Your task to perform on an android device: Search for seafood restaurants on Google Maps Image 0: 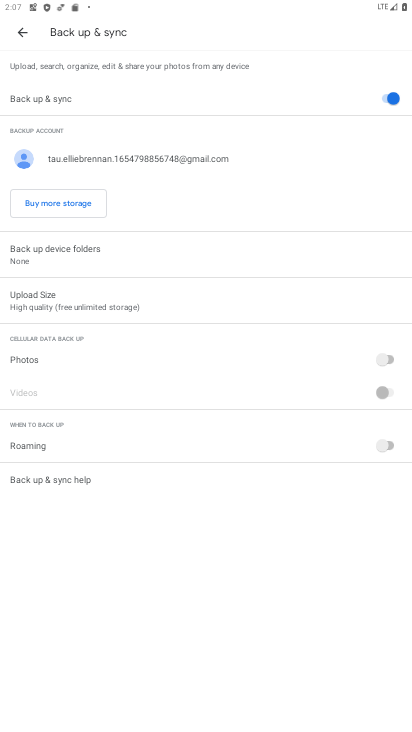
Step 0: press home button
Your task to perform on an android device: Search for seafood restaurants on Google Maps Image 1: 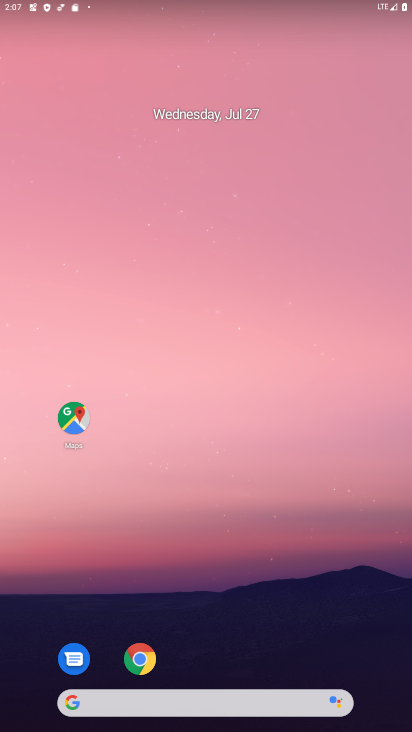
Step 1: drag from (170, 717) to (154, 13)
Your task to perform on an android device: Search for seafood restaurants on Google Maps Image 2: 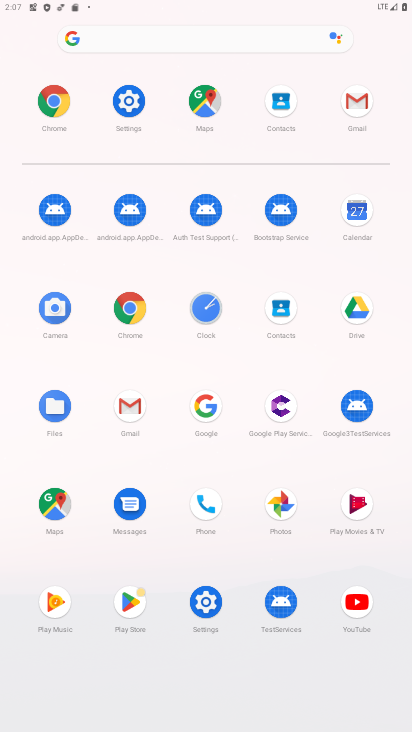
Step 2: click (52, 497)
Your task to perform on an android device: Search for seafood restaurants on Google Maps Image 3: 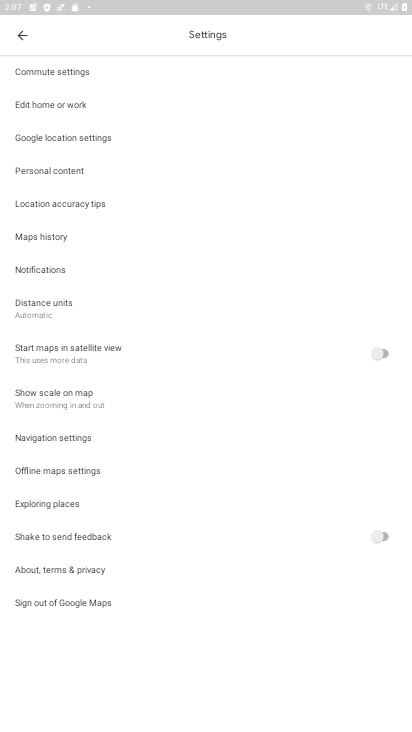
Step 3: click (23, 34)
Your task to perform on an android device: Search for seafood restaurants on Google Maps Image 4: 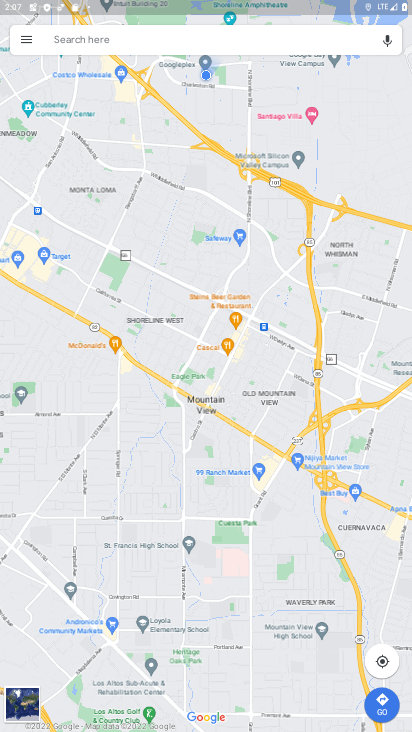
Step 4: click (201, 38)
Your task to perform on an android device: Search for seafood restaurants on Google Maps Image 5: 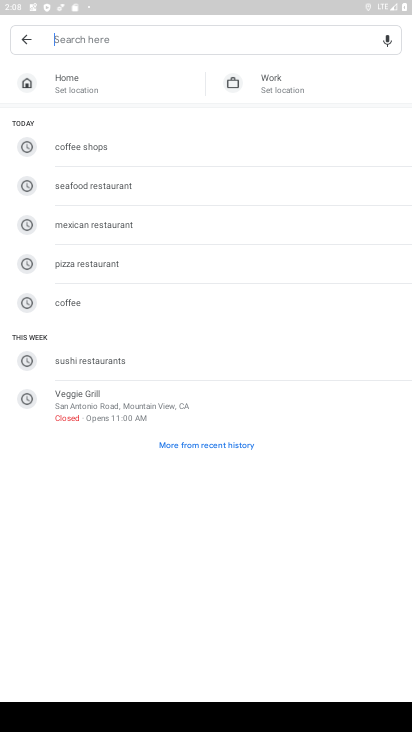
Step 5: type "seafood restaurants"
Your task to perform on an android device: Search for seafood restaurants on Google Maps Image 6: 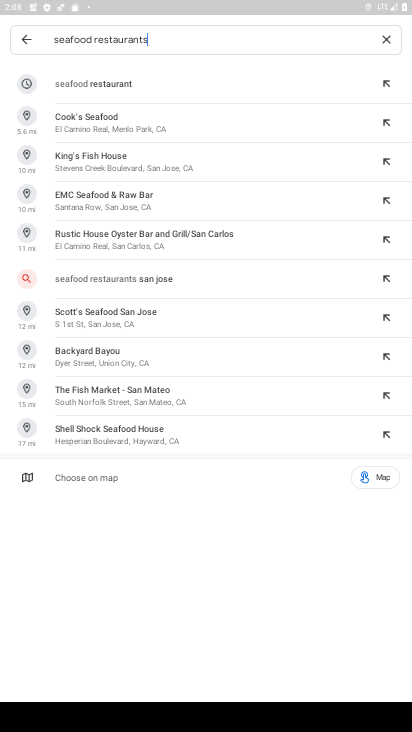
Step 6: click (97, 88)
Your task to perform on an android device: Search for seafood restaurants on Google Maps Image 7: 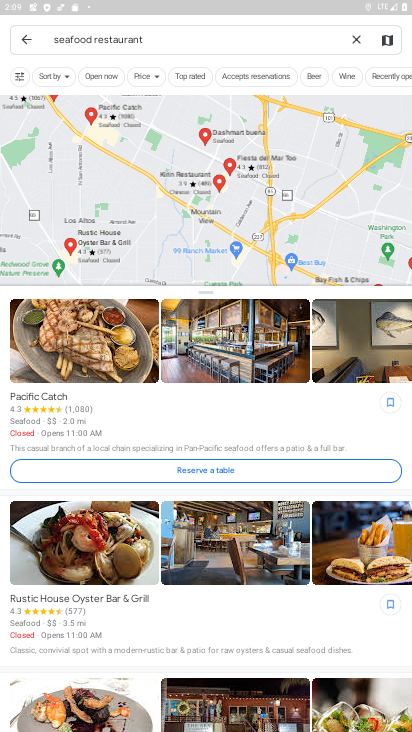
Step 7: task complete